Your task to perform on an android device: When is my next meeting? Image 0: 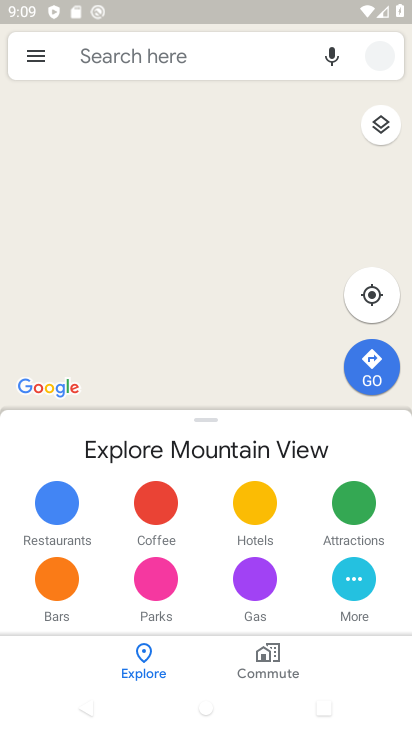
Step 0: press home button
Your task to perform on an android device: When is my next meeting? Image 1: 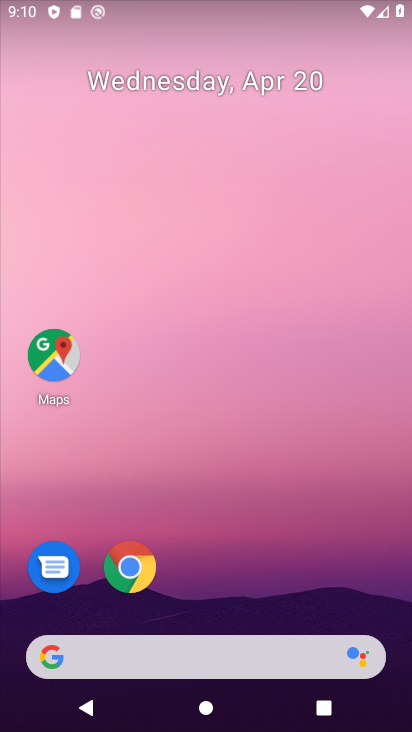
Step 1: drag from (375, 572) to (356, 160)
Your task to perform on an android device: When is my next meeting? Image 2: 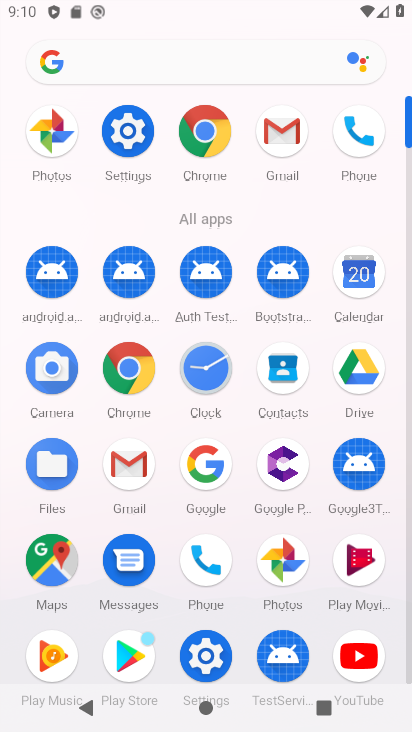
Step 2: click (358, 288)
Your task to perform on an android device: When is my next meeting? Image 3: 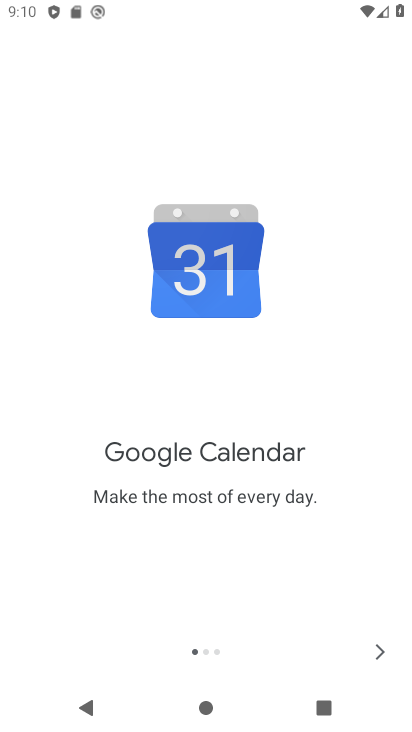
Step 3: click (377, 650)
Your task to perform on an android device: When is my next meeting? Image 4: 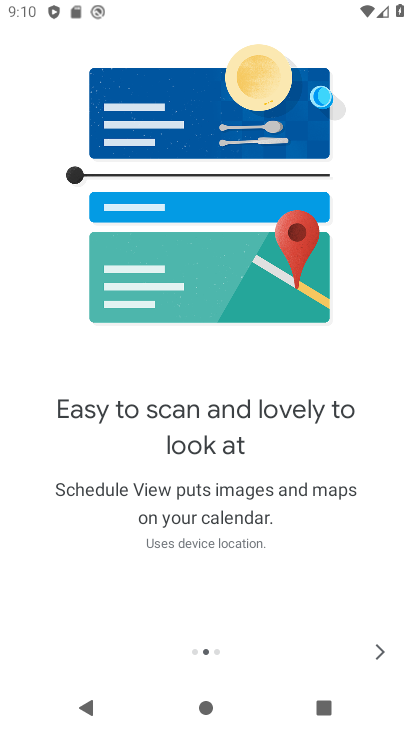
Step 4: click (377, 650)
Your task to perform on an android device: When is my next meeting? Image 5: 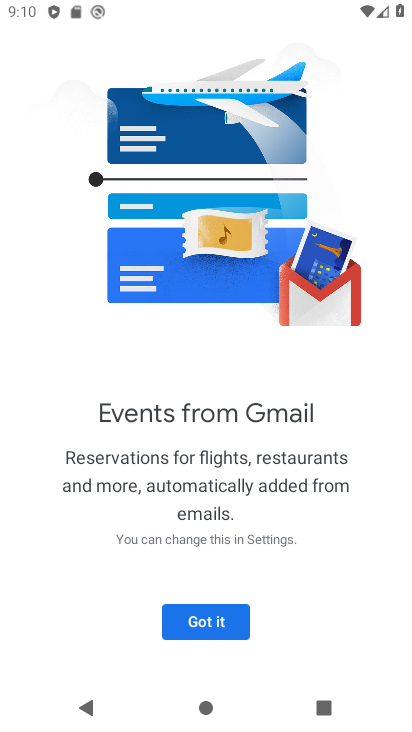
Step 5: click (218, 627)
Your task to perform on an android device: When is my next meeting? Image 6: 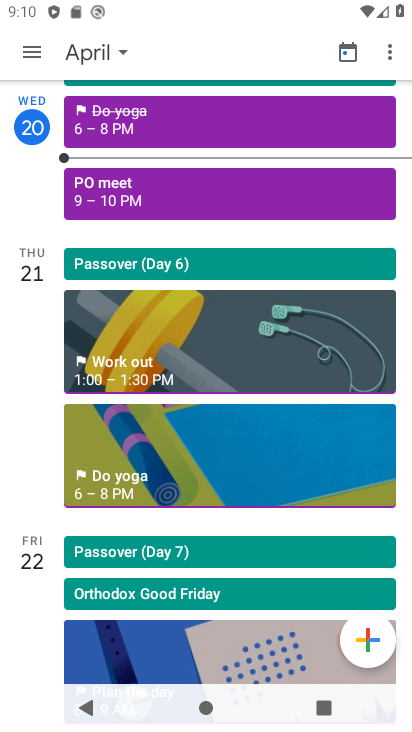
Step 6: task complete